Your task to perform on an android device: change the clock display to analog Image 0: 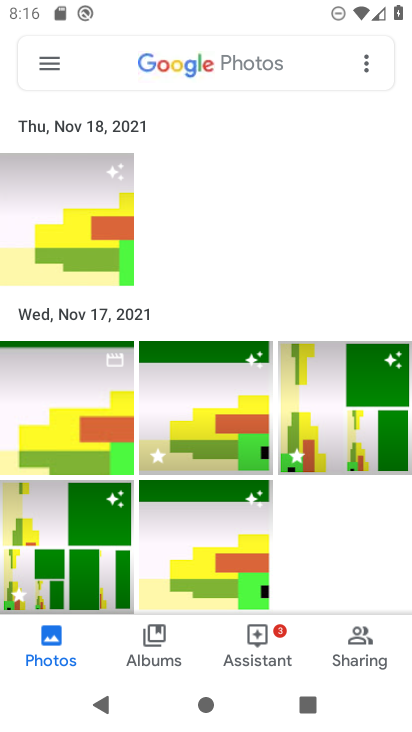
Step 0: press home button
Your task to perform on an android device: change the clock display to analog Image 1: 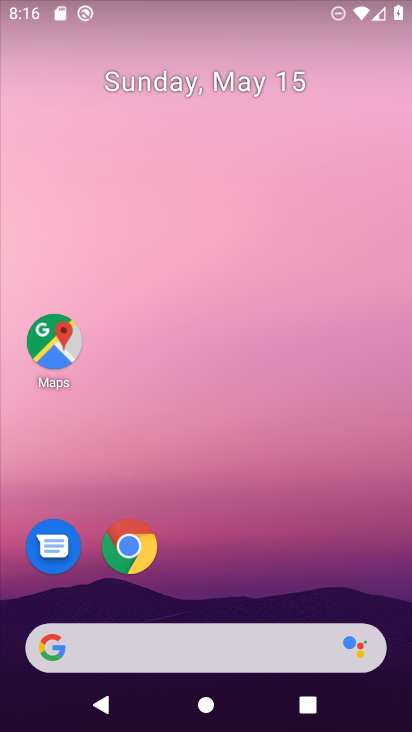
Step 1: drag from (211, 482) to (248, 117)
Your task to perform on an android device: change the clock display to analog Image 2: 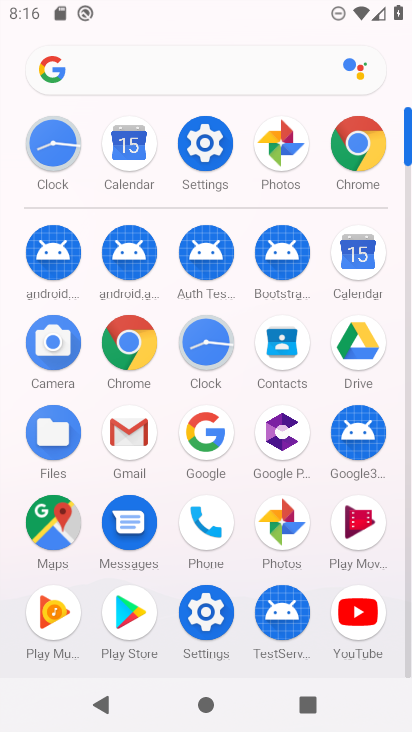
Step 2: click (204, 346)
Your task to perform on an android device: change the clock display to analog Image 3: 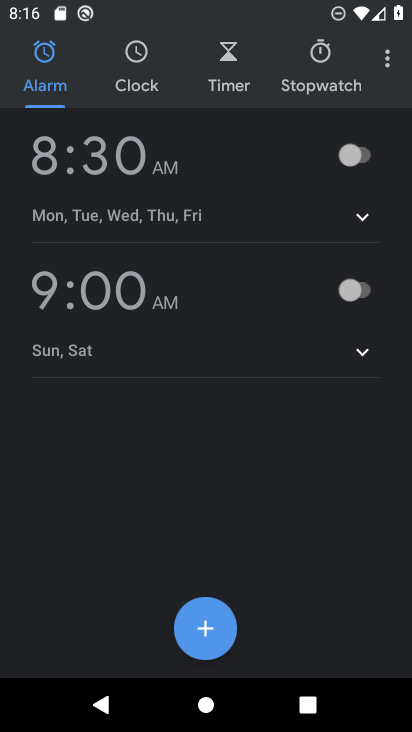
Step 3: click (130, 69)
Your task to perform on an android device: change the clock display to analog Image 4: 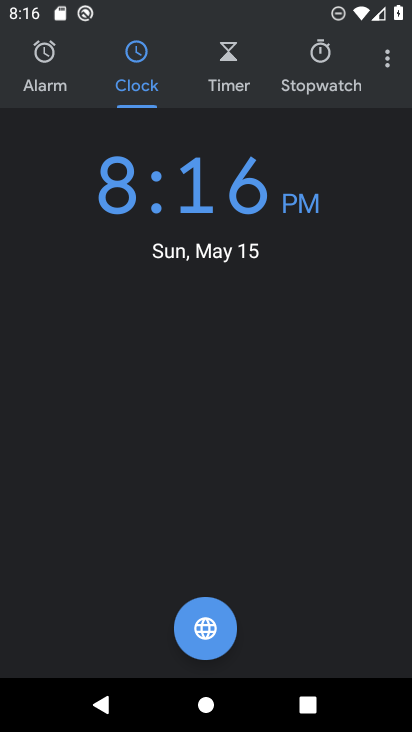
Step 4: click (383, 57)
Your task to perform on an android device: change the clock display to analog Image 5: 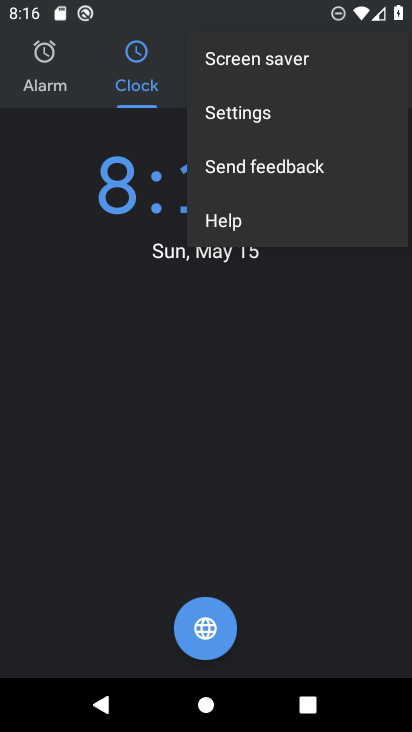
Step 5: click (339, 108)
Your task to perform on an android device: change the clock display to analog Image 6: 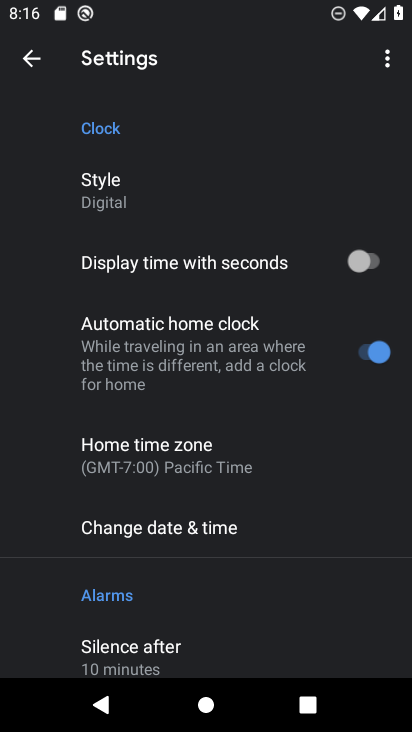
Step 6: click (162, 185)
Your task to perform on an android device: change the clock display to analog Image 7: 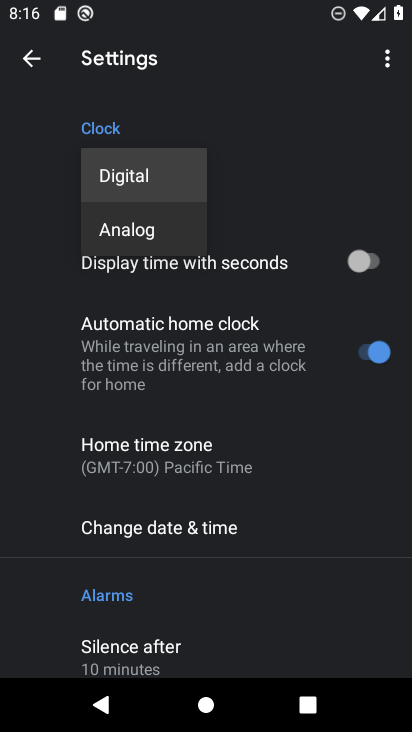
Step 7: click (161, 226)
Your task to perform on an android device: change the clock display to analog Image 8: 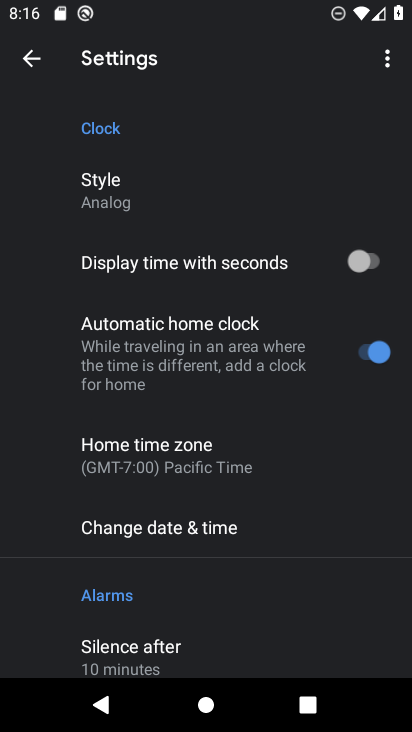
Step 8: task complete